Your task to perform on an android device: turn on bluetooth scan Image 0: 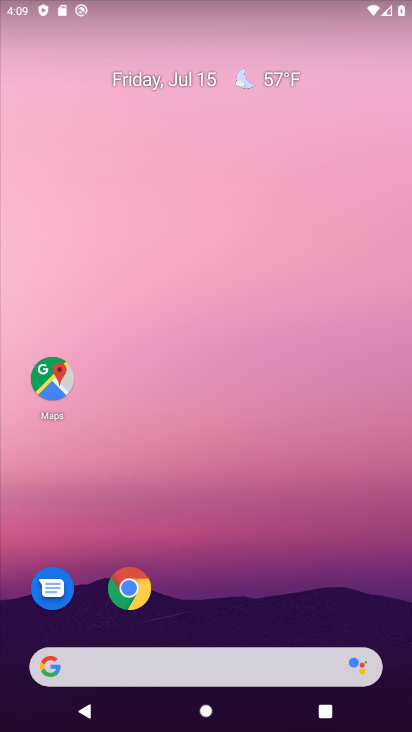
Step 0: drag from (222, 665) to (235, 225)
Your task to perform on an android device: turn on bluetooth scan Image 1: 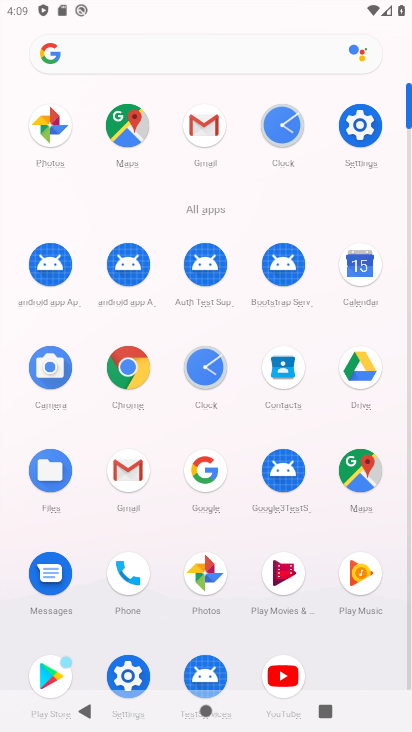
Step 1: click (359, 127)
Your task to perform on an android device: turn on bluetooth scan Image 2: 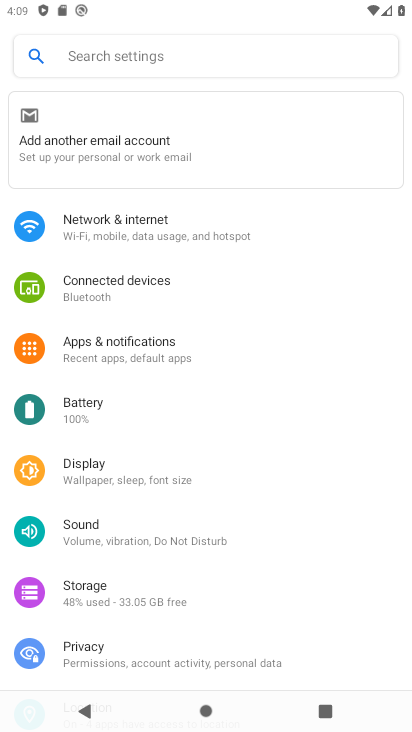
Step 2: drag from (114, 430) to (130, 318)
Your task to perform on an android device: turn on bluetooth scan Image 3: 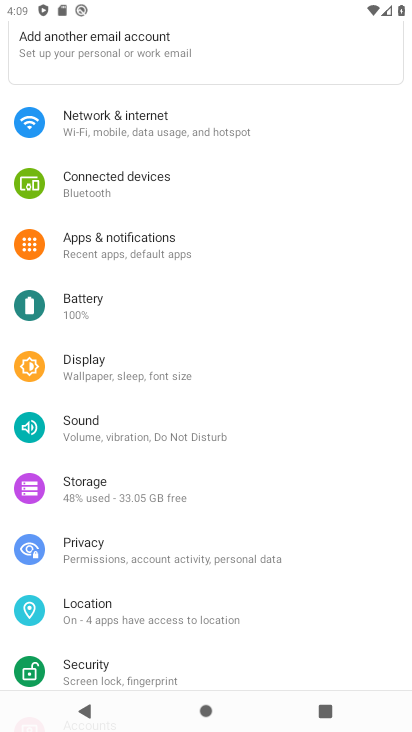
Step 3: drag from (123, 403) to (131, 344)
Your task to perform on an android device: turn on bluetooth scan Image 4: 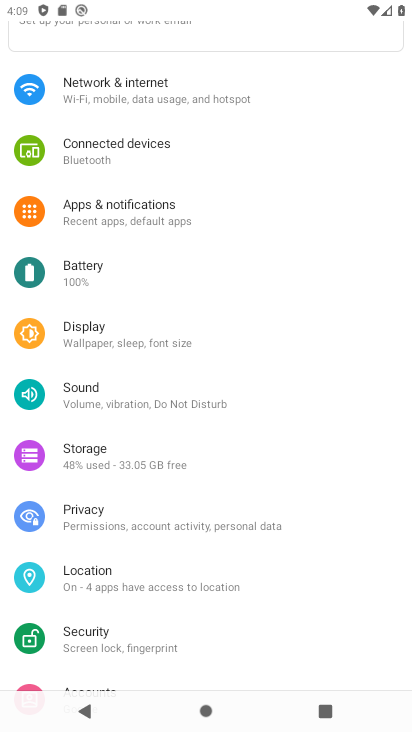
Step 4: drag from (135, 490) to (132, 404)
Your task to perform on an android device: turn on bluetooth scan Image 5: 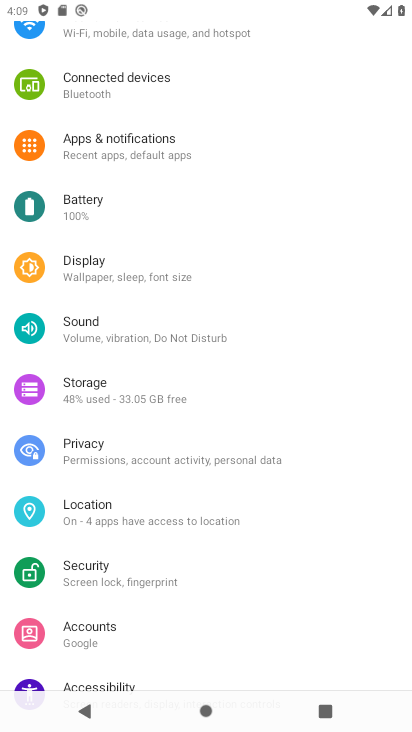
Step 5: click (111, 506)
Your task to perform on an android device: turn on bluetooth scan Image 6: 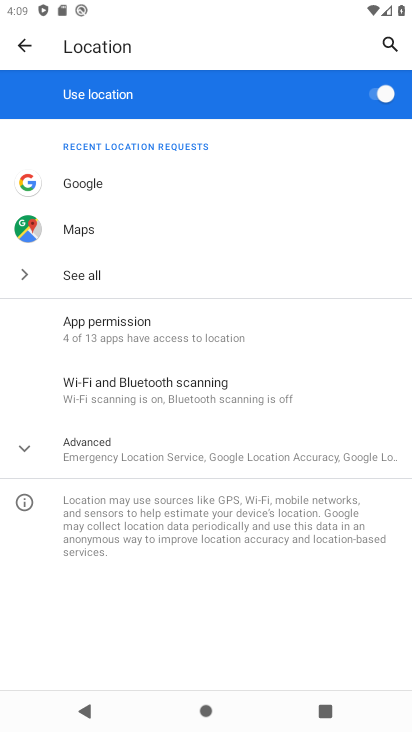
Step 6: click (138, 395)
Your task to perform on an android device: turn on bluetooth scan Image 7: 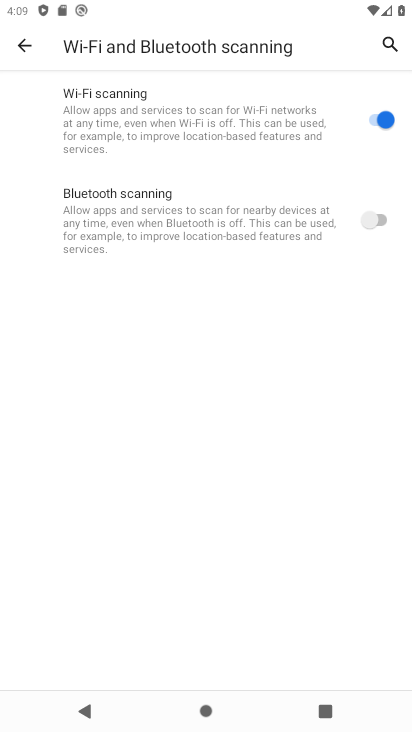
Step 7: click (368, 225)
Your task to perform on an android device: turn on bluetooth scan Image 8: 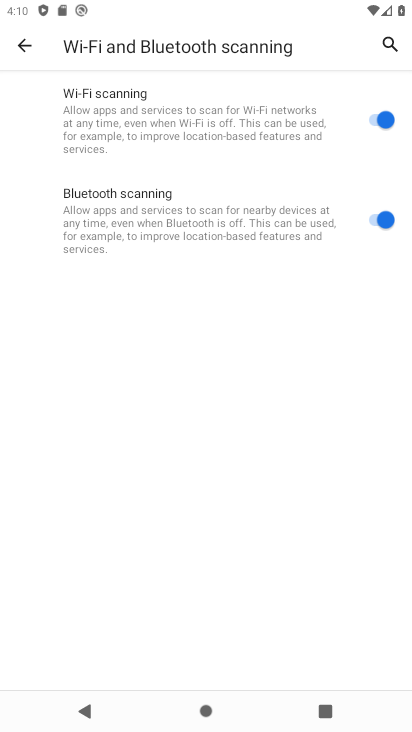
Step 8: task complete